Your task to perform on an android device: add a label to a message in the gmail app Image 0: 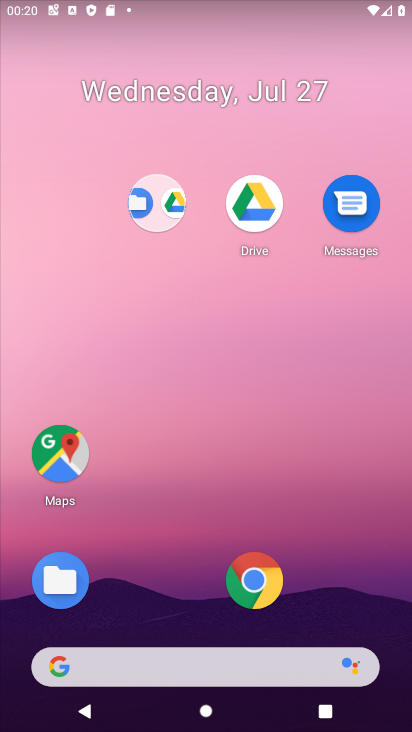
Step 0: drag from (149, 598) to (204, 154)
Your task to perform on an android device: add a label to a message in the gmail app Image 1: 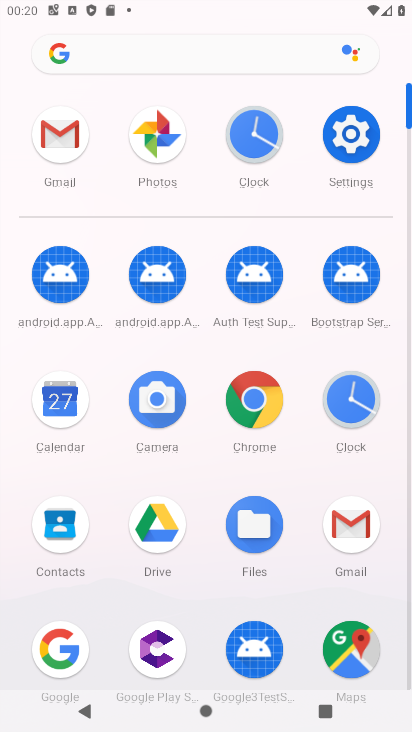
Step 1: click (73, 142)
Your task to perform on an android device: add a label to a message in the gmail app Image 2: 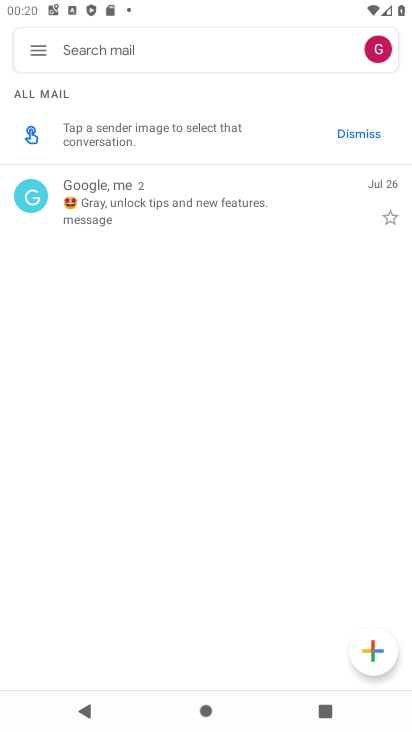
Step 2: click (21, 189)
Your task to perform on an android device: add a label to a message in the gmail app Image 3: 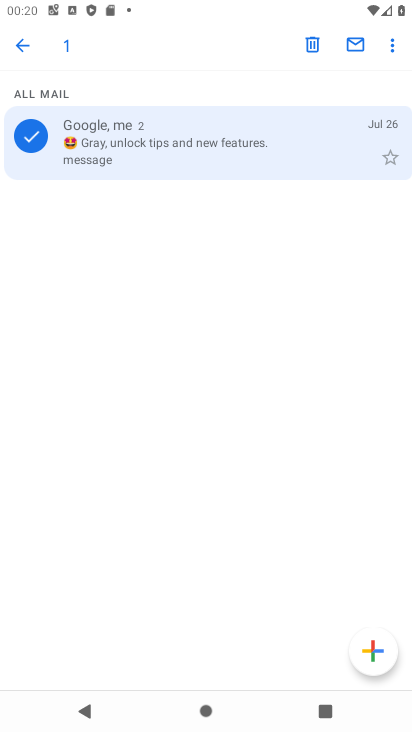
Step 3: click (396, 39)
Your task to perform on an android device: add a label to a message in the gmail app Image 4: 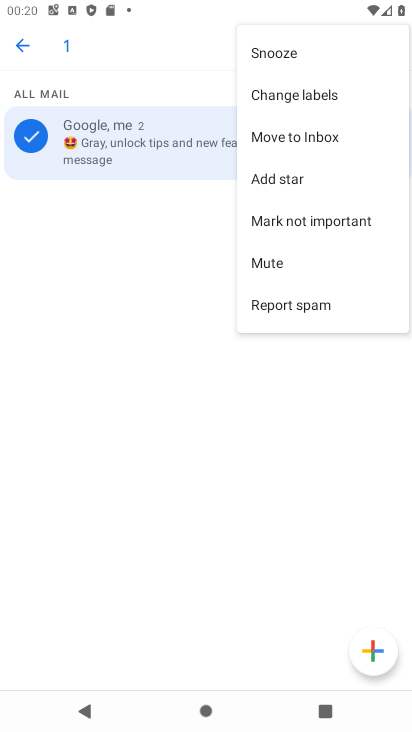
Step 4: click (314, 99)
Your task to perform on an android device: add a label to a message in the gmail app Image 5: 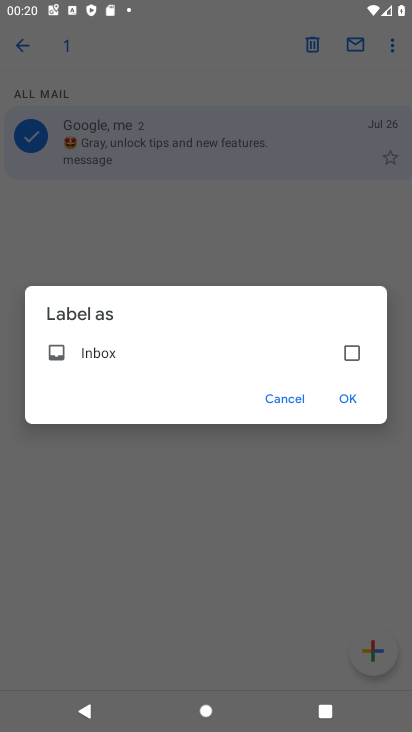
Step 5: click (354, 352)
Your task to perform on an android device: add a label to a message in the gmail app Image 6: 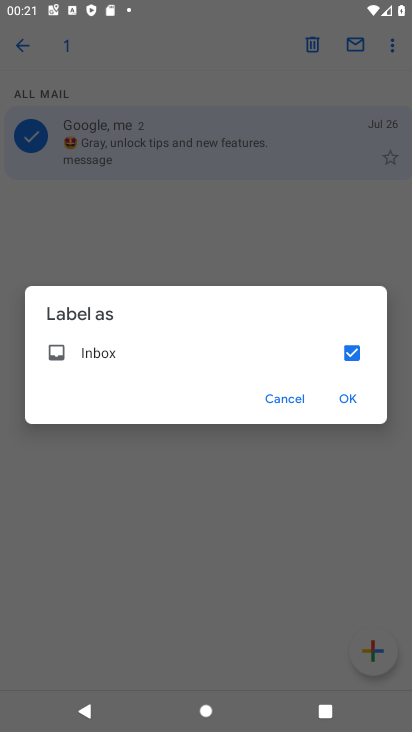
Step 6: click (356, 410)
Your task to perform on an android device: add a label to a message in the gmail app Image 7: 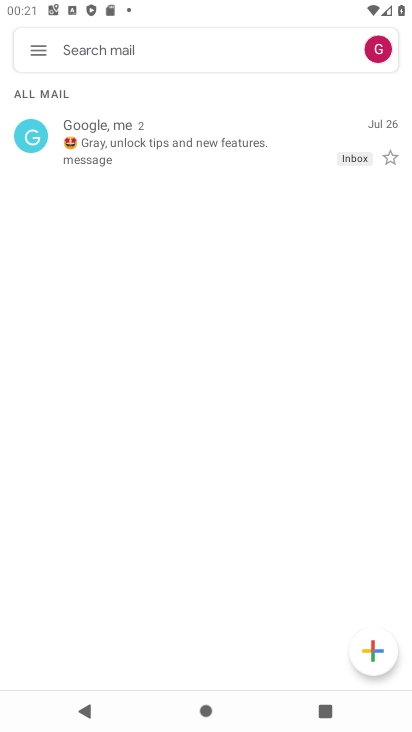
Step 7: task complete